Your task to perform on an android device: open chrome and create a bookmark for the current page Image 0: 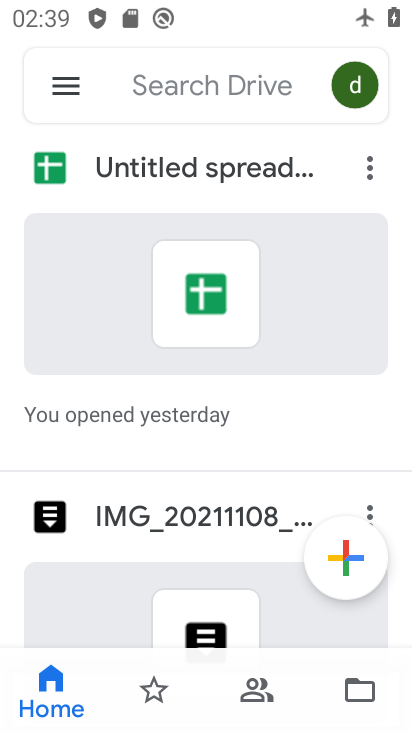
Step 0: press home button
Your task to perform on an android device: open chrome and create a bookmark for the current page Image 1: 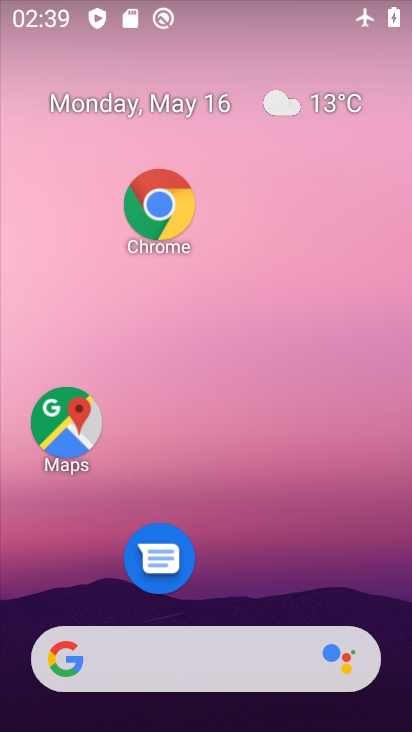
Step 1: drag from (219, 602) to (144, 5)
Your task to perform on an android device: open chrome and create a bookmark for the current page Image 2: 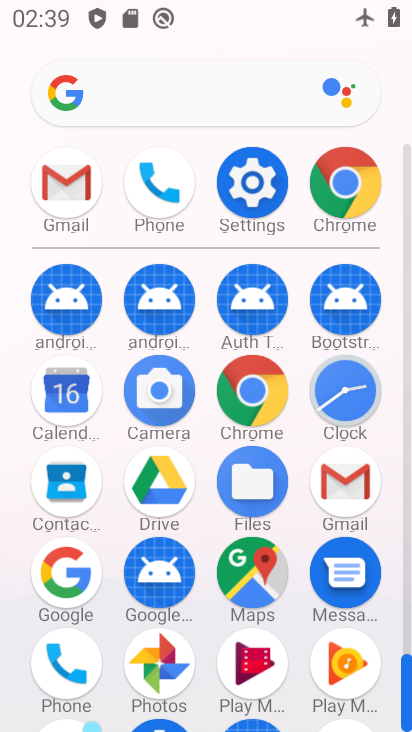
Step 2: click (342, 181)
Your task to perform on an android device: open chrome and create a bookmark for the current page Image 3: 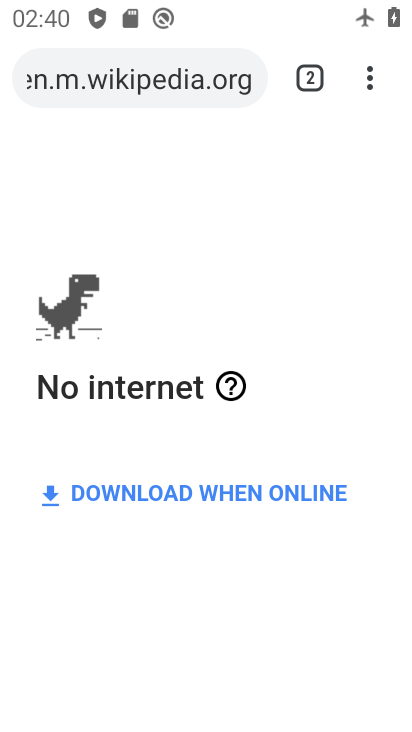
Step 3: drag from (368, 86) to (157, 75)
Your task to perform on an android device: open chrome and create a bookmark for the current page Image 4: 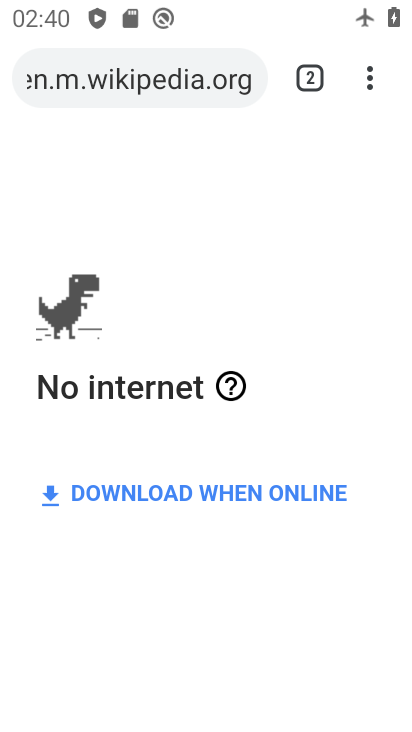
Step 4: click (362, 81)
Your task to perform on an android device: open chrome and create a bookmark for the current page Image 5: 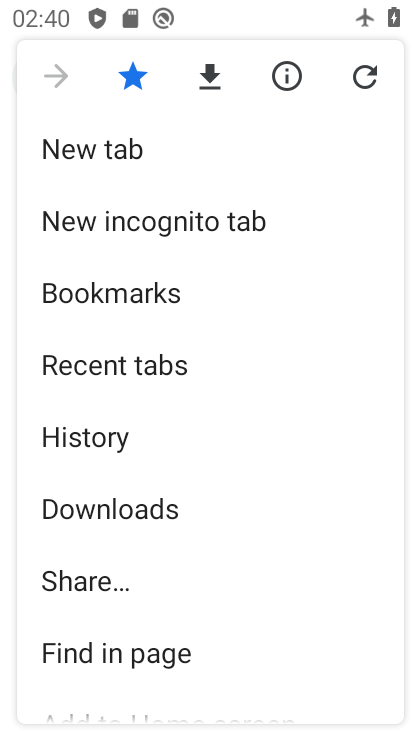
Step 5: task complete